Your task to perform on an android device: turn on bluetooth scan Image 0: 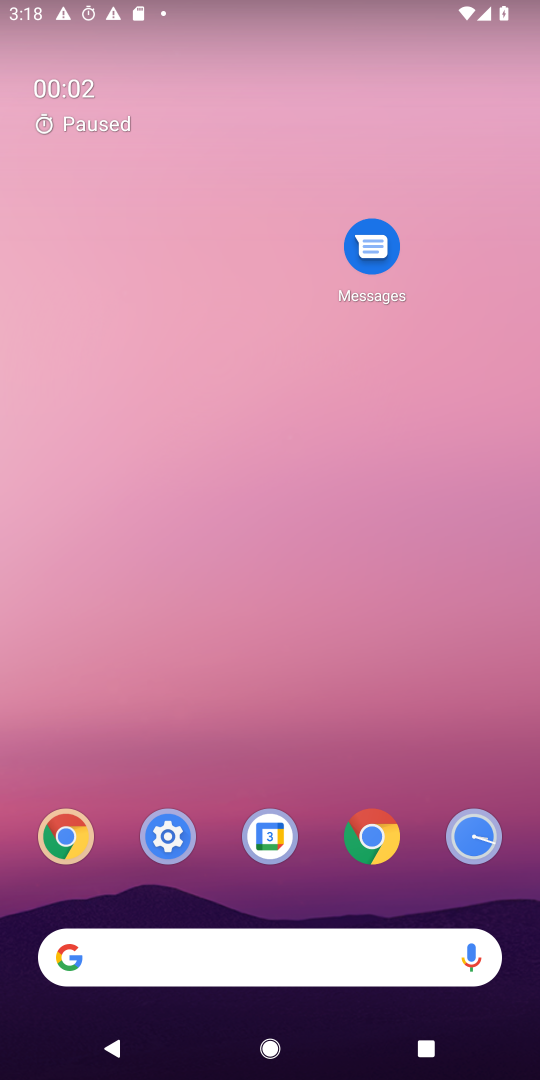
Step 0: drag from (39, 1026) to (315, 402)
Your task to perform on an android device: turn on bluetooth scan Image 1: 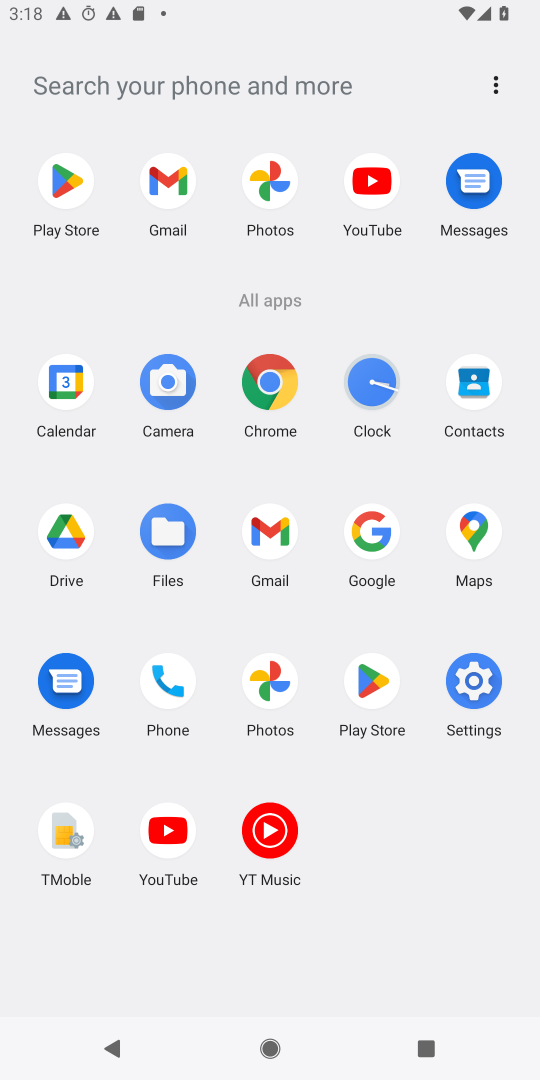
Step 1: click (474, 701)
Your task to perform on an android device: turn on bluetooth scan Image 2: 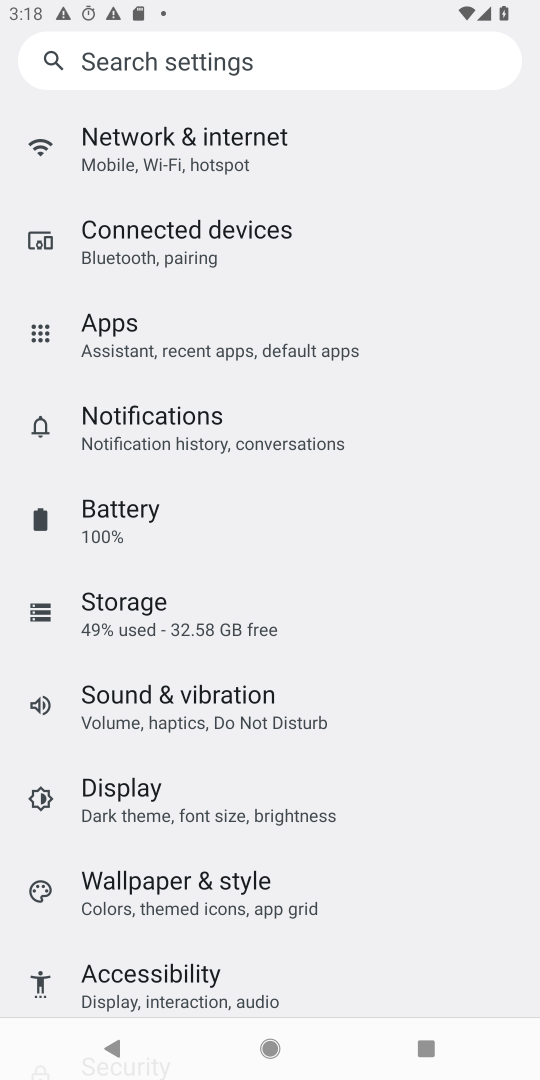
Step 2: click (124, 231)
Your task to perform on an android device: turn on bluetooth scan Image 3: 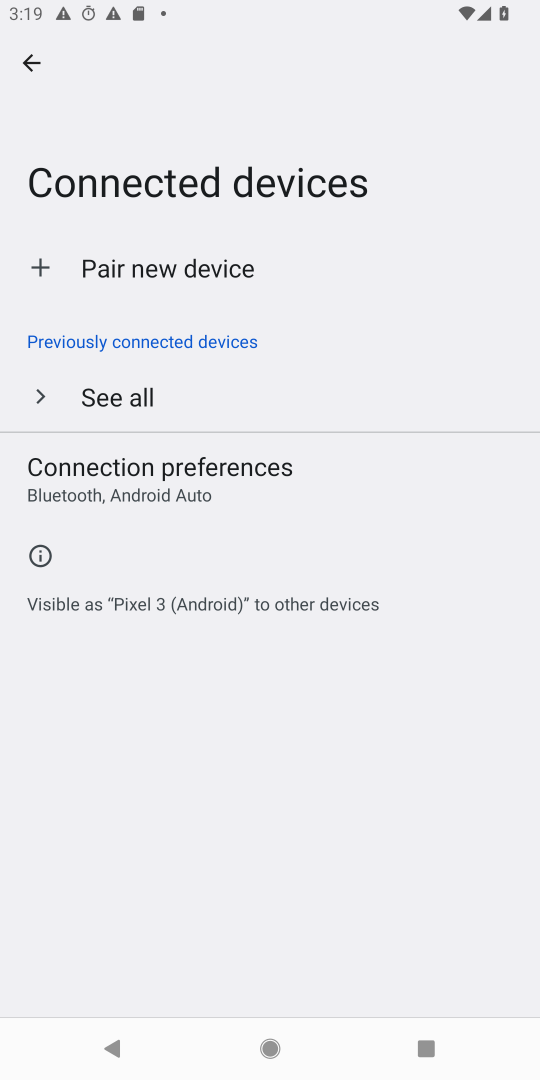
Step 3: click (143, 489)
Your task to perform on an android device: turn on bluetooth scan Image 4: 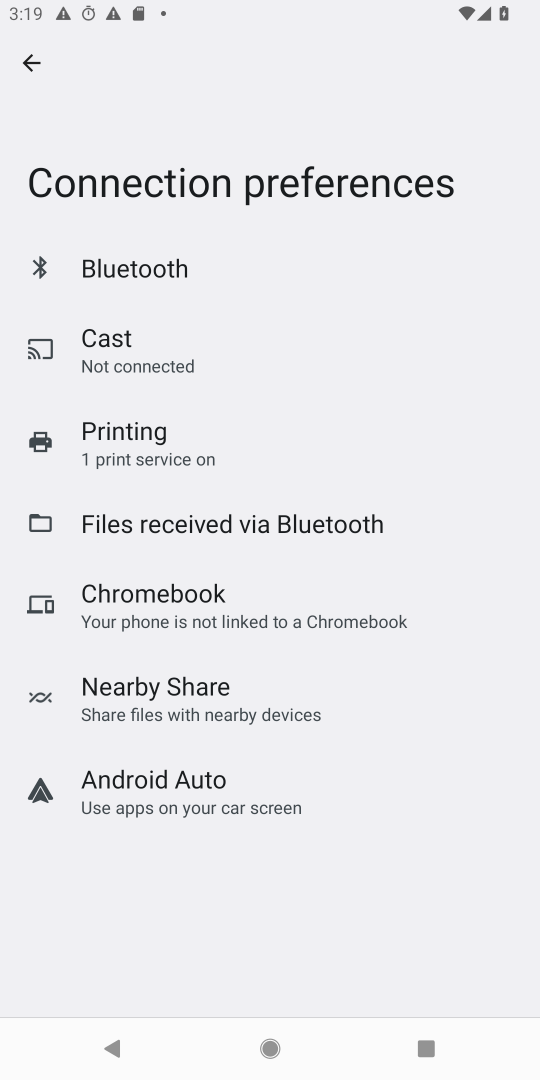
Step 4: click (174, 266)
Your task to perform on an android device: turn on bluetooth scan Image 5: 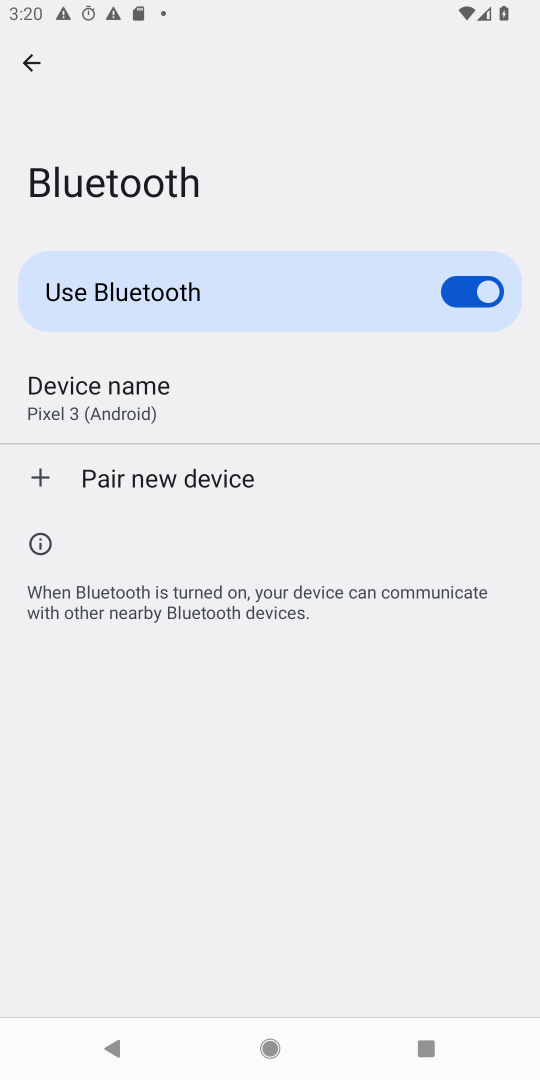
Step 5: task complete